Your task to perform on an android device: Go to privacy settings Image 0: 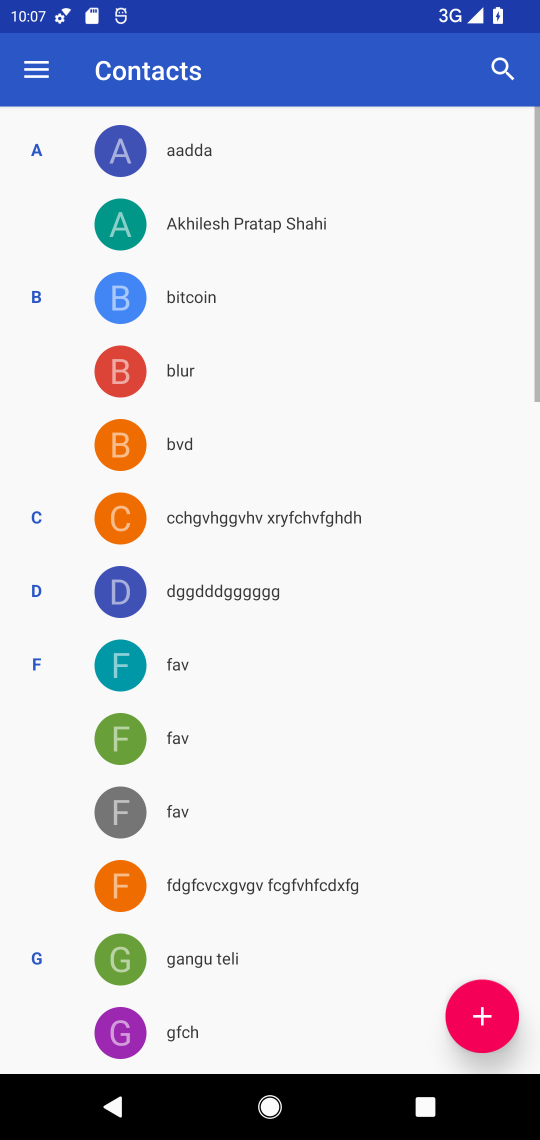
Step 0: task impossible